Your task to perform on an android device: toggle airplane mode Image 0: 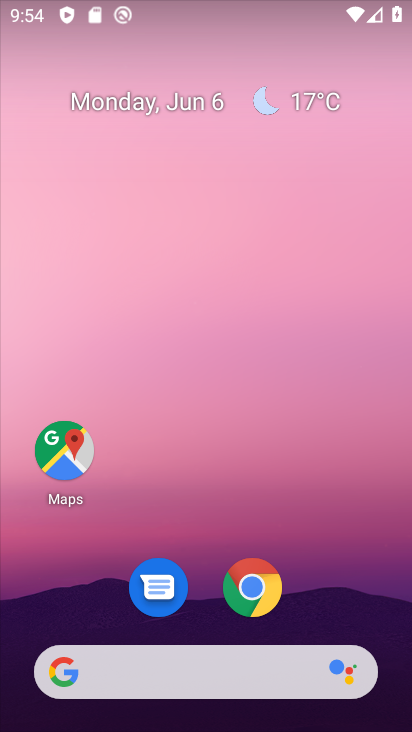
Step 0: drag from (346, 614) to (265, 218)
Your task to perform on an android device: toggle airplane mode Image 1: 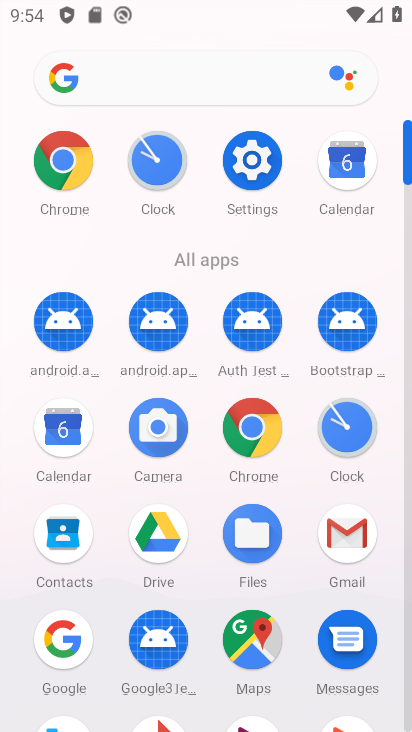
Step 1: click (256, 182)
Your task to perform on an android device: toggle airplane mode Image 2: 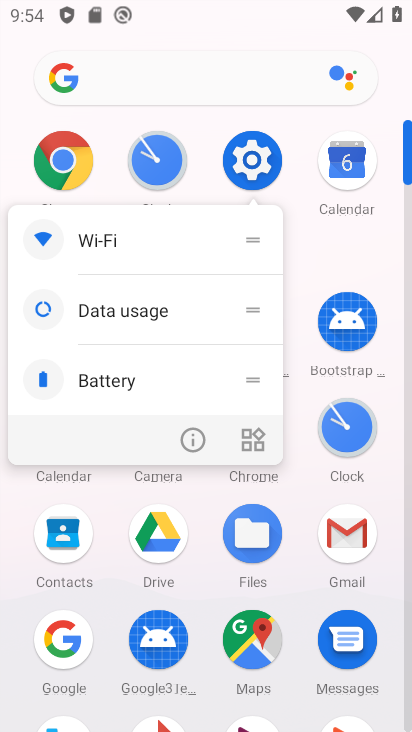
Step 2: click (256, 182)
Your task to perform on an android device: toggle airplane mode Image 3: 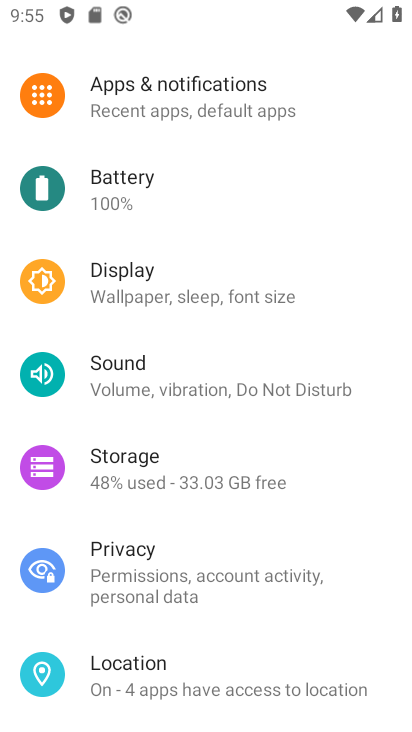
Step 3: drag from (248, 99) to (299, 473)
Your task to perform on an android device: toggle airplane mode Image 4: 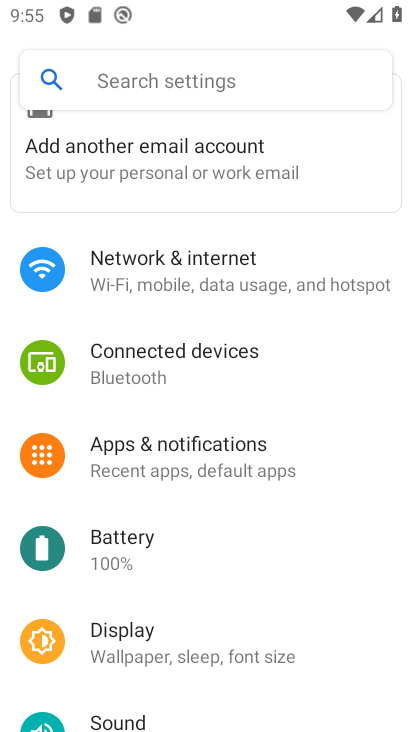
Step 4: click (253, 257)
Your task to perform on an android device: toggle airplane mode Image 5: 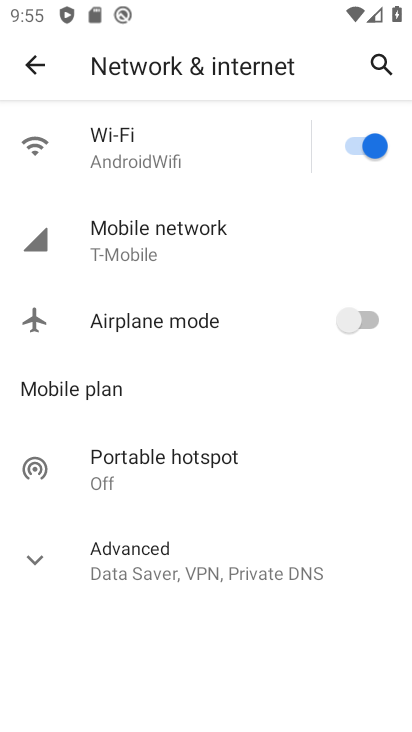
Step 5: click (335, 310)
Your task to perform on an android device: toggle airplane mode Image 6: 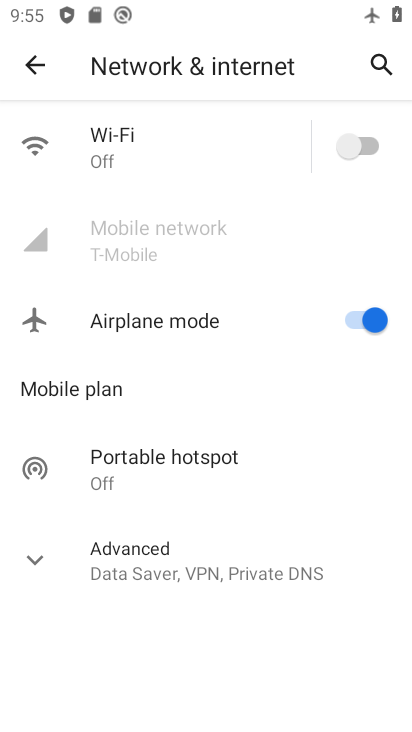
Step 6: task complete